Your task to perform on an android device: Open location settings Image 0: 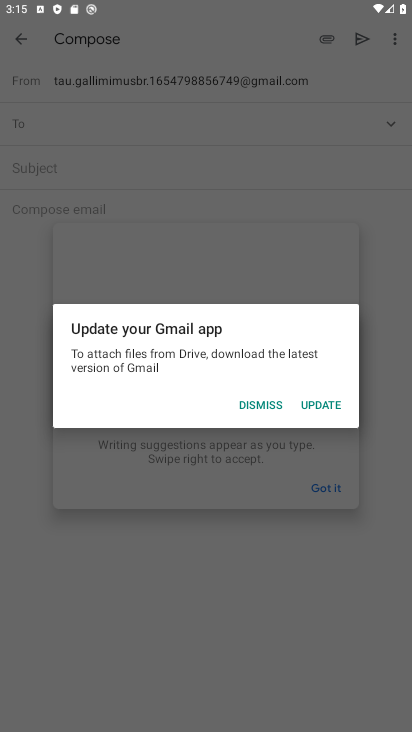
Step 0: press home button
Your task to perform on an android device: Open location settings Image 1: 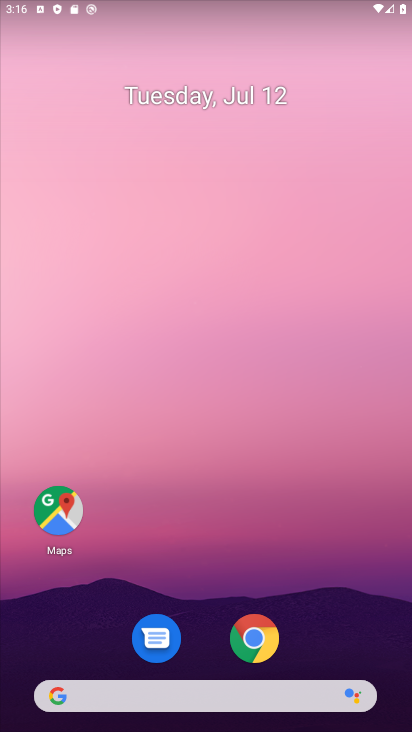
Step 1: drag from (292, 3) to (265, 662)
Your task to perform on an android device: Open location settings Image 2: 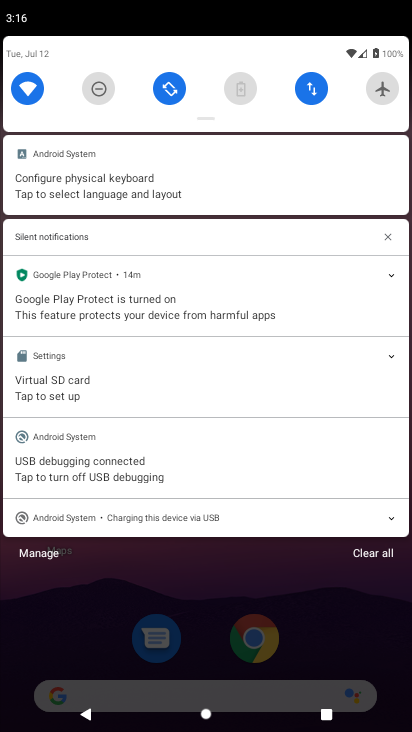
Step 2: drag from (202, 37) to (173, 632)
Your task to perform on an android device: Open location settings Image 3: 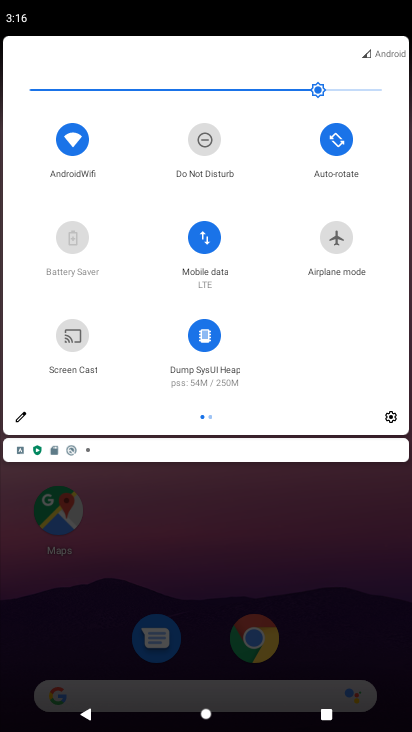
Step 3: click (389, 414)
Your task to perform on an android device: Open location settings Image 4: 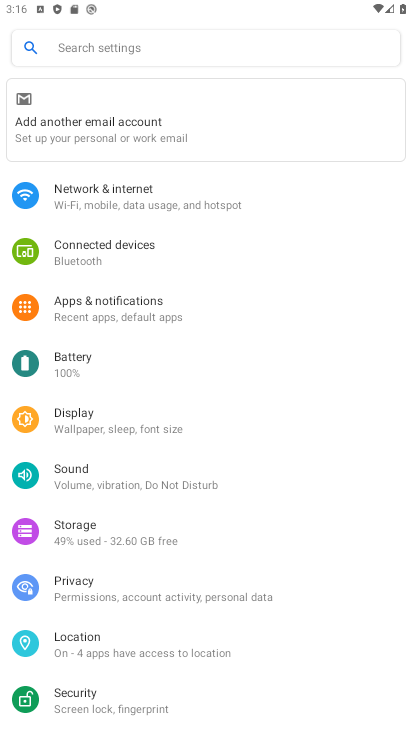
Step 4: click (94, 632)
Your task to perform on an android device: Open location settings Image 5: 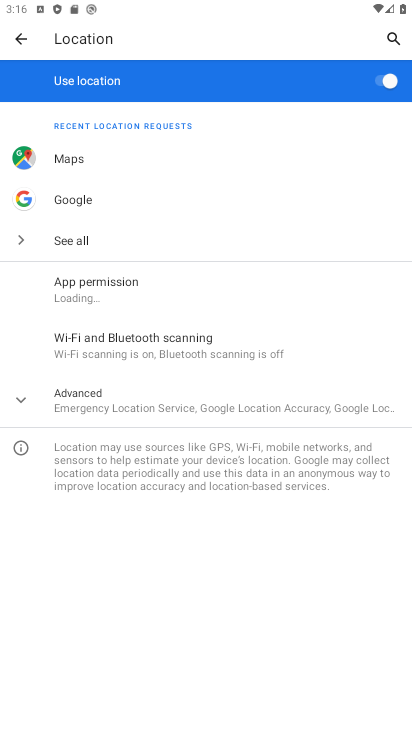
Step 5: task complete